Your task to perform on an android device: add a contact Image 0: 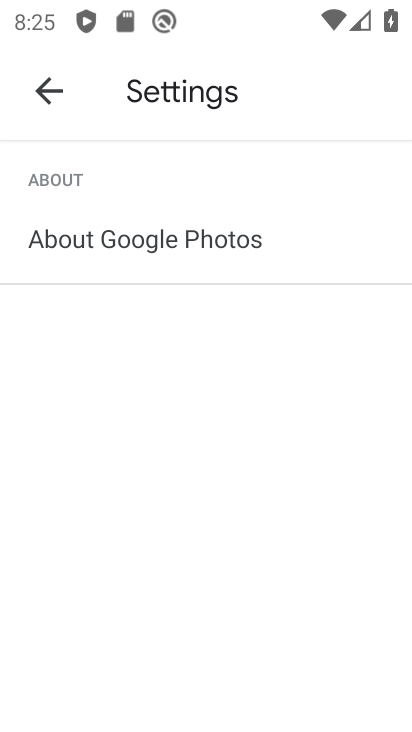
Step 0: press home button
Your task to perform on an android device: add a contact Image 1: 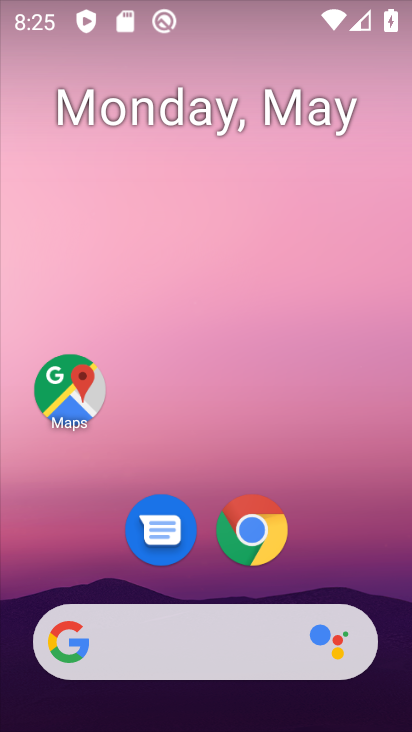
Step 1: drag from (375, 571) to (294, 184)
Your task to perform on an android device: add a contact Image 2: 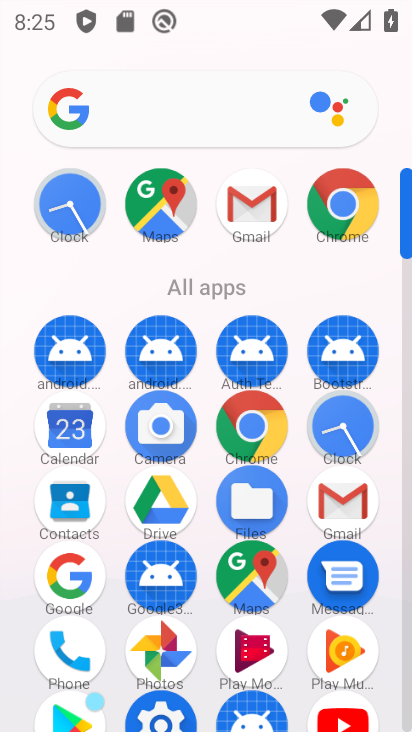
Step 2: click (79, 493)
Your task to perform on an android device: add a contact Image 3: 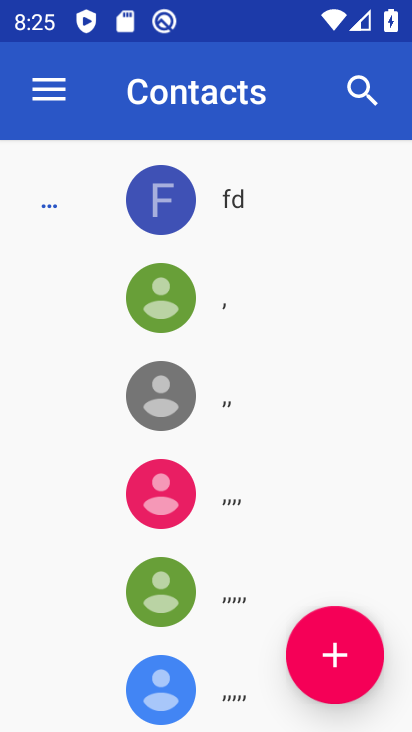
Step 3: click (337, 657)
Your task to perform on an android device: add a contact Image 4: 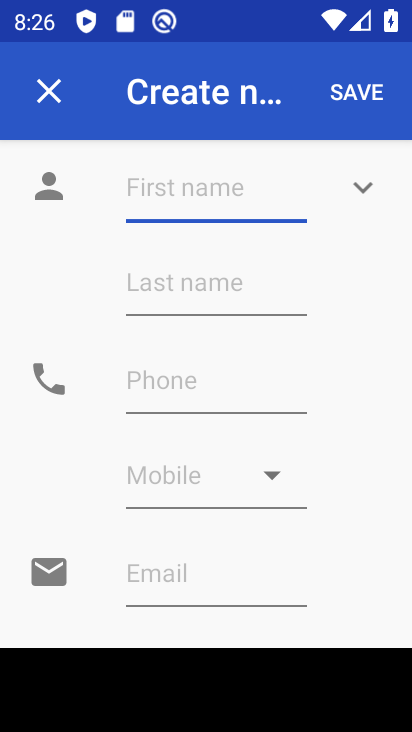
Step 4: type "kjjdc"
Your task to perform on an android device: add a contact Image 5: 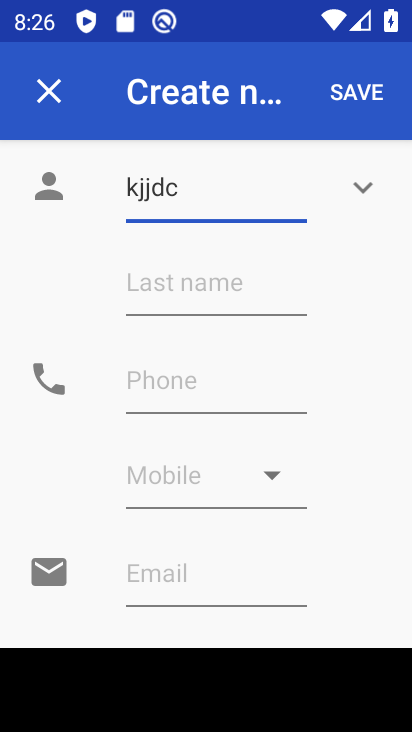
Step 5: click (248, 397)
Your task to perform on an android device: add a contact Image 6: 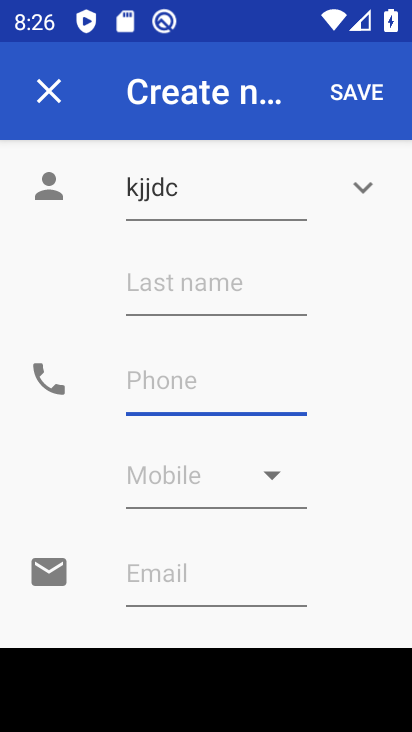
Step 6: type "09u38023"
Your task to perform on an android device: add a contact Image 7: 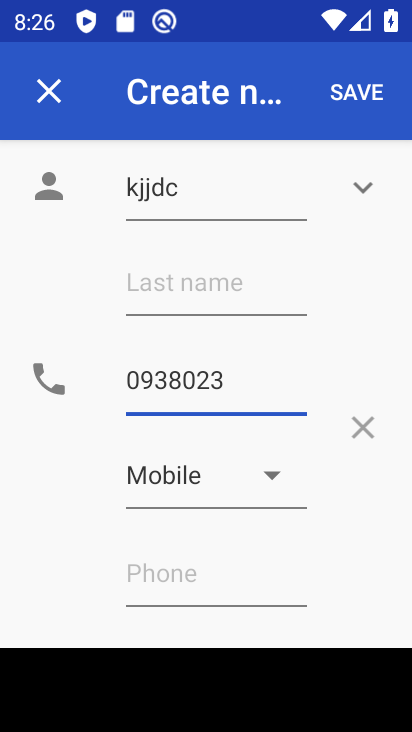
Step 7: click (367, 90)
Your task to perform on an android device: add a contact Image 8: 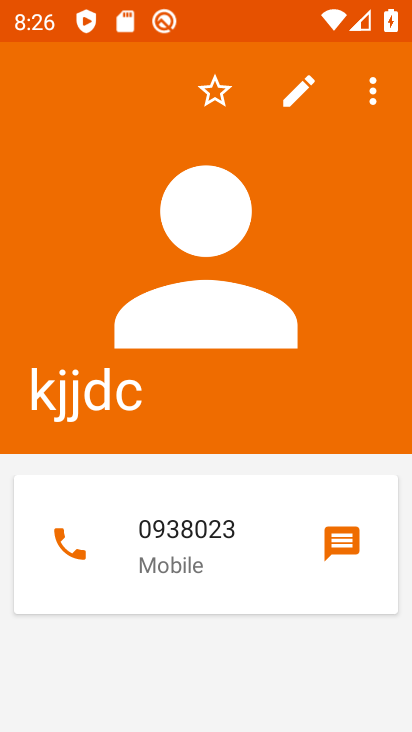
Step 8: task complete